Your task to perform on an android device: set an alarm Image 0: 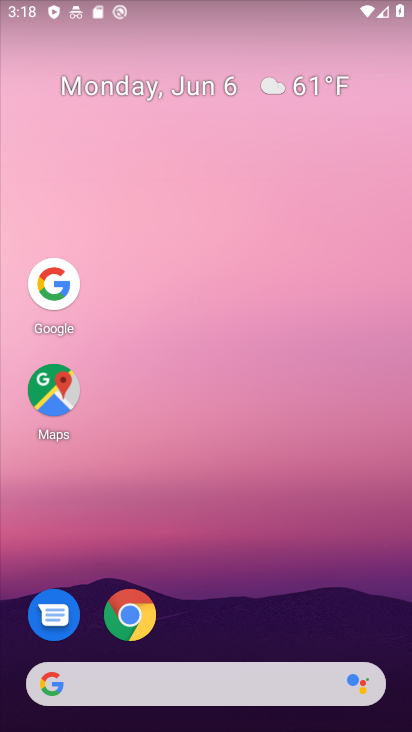
Step 0: drag from (190, 610) to (218, 149)
Your task to perform on an android device: set an alarm Image 1: 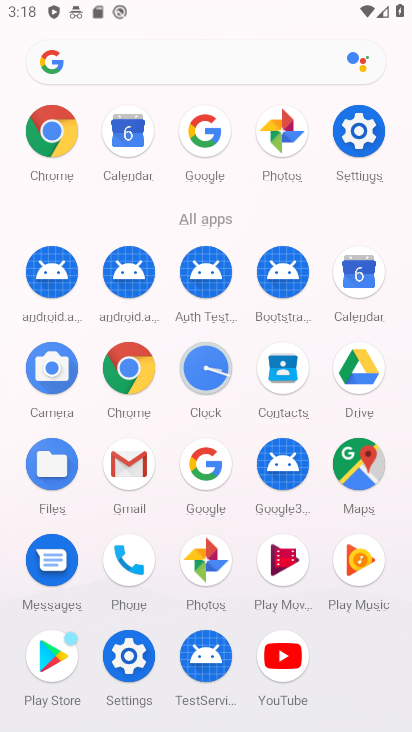
Step 1: click (211, 380)
Your task to perform on an android device: set an alarm Image 2: 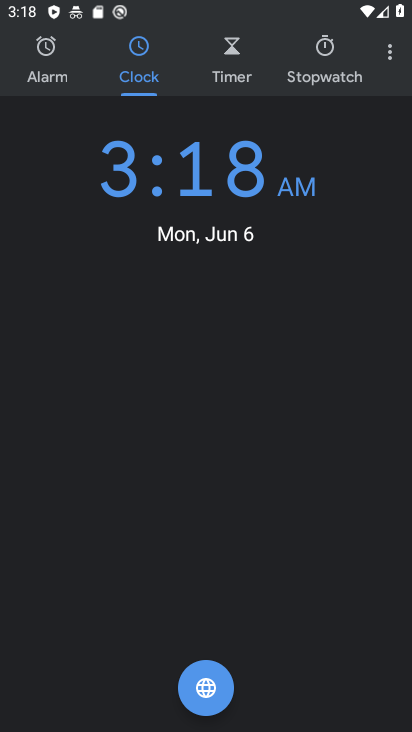
Step 2: click (49, 82)
Your task to perform on an android device: set an alarm Image 3: 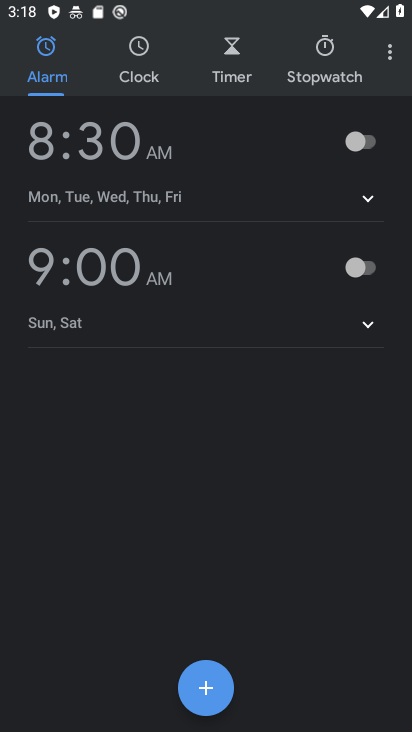
Step 3: click (376, 139)
Your task to perform on an android device: set an alarm Image 4: 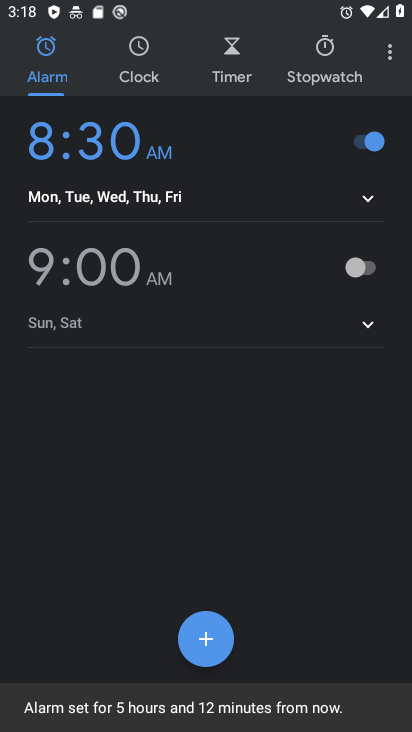
Step 4: task complete